Your task to perform on an android device: Open notification settings Image 0: 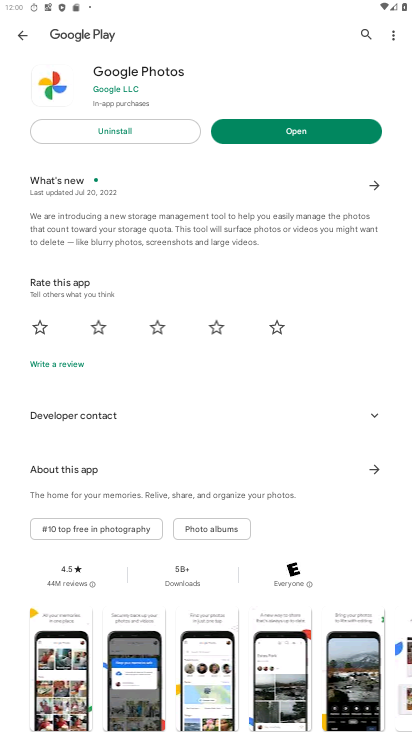
Step 0: press home button
Your task to perform on an android device: Open notification settings Image 1: 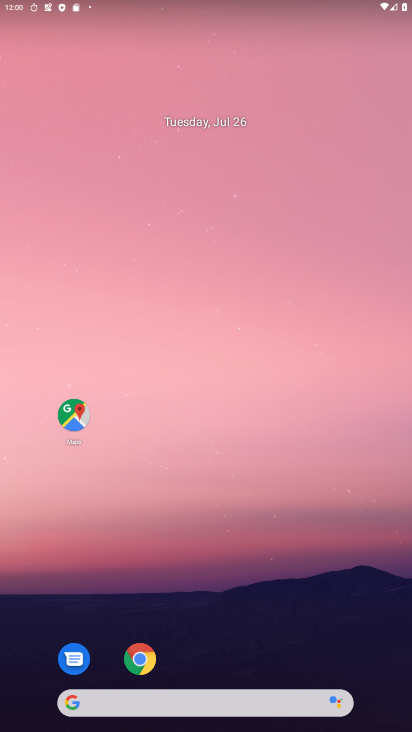
Step 1: drag from (197, 572) to (219, 127)
Your task to perform on an android device: Open notification settings Image 2: 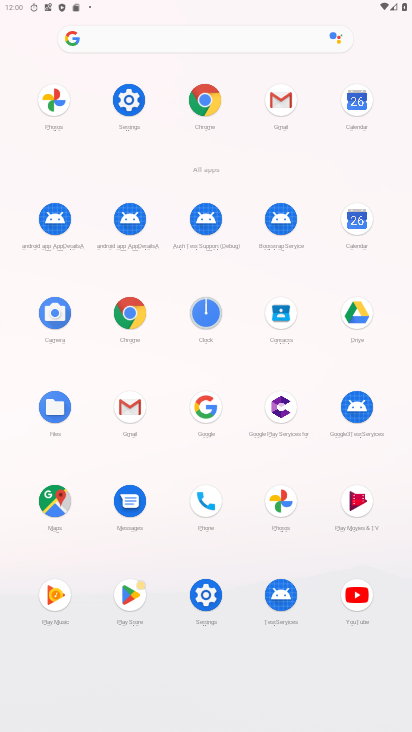
Step 2: click (131, 105)
Your task to perform on an android device: Open notification settings Image 3: 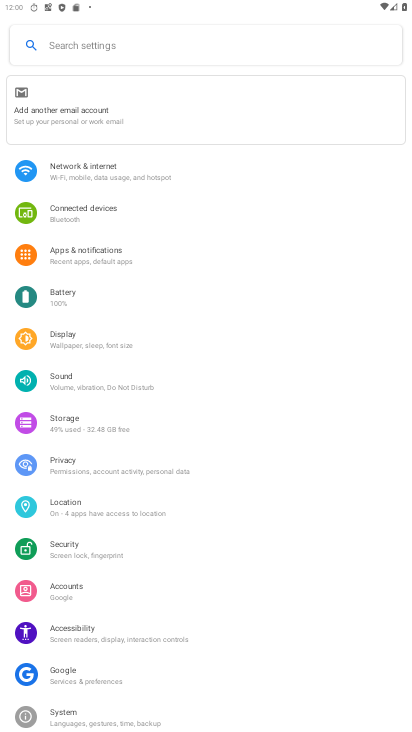
Step 3: click (87, 249)
Your task to perform on an android device: Open notification settings Image 4: 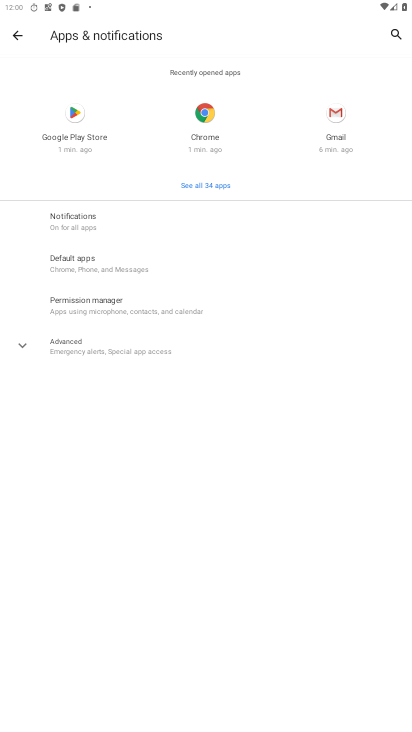
Step 4: task complete